Your task to perform on an android device: Search for the best rated 150-piece drill bit set on Aliexpress. Image 0: 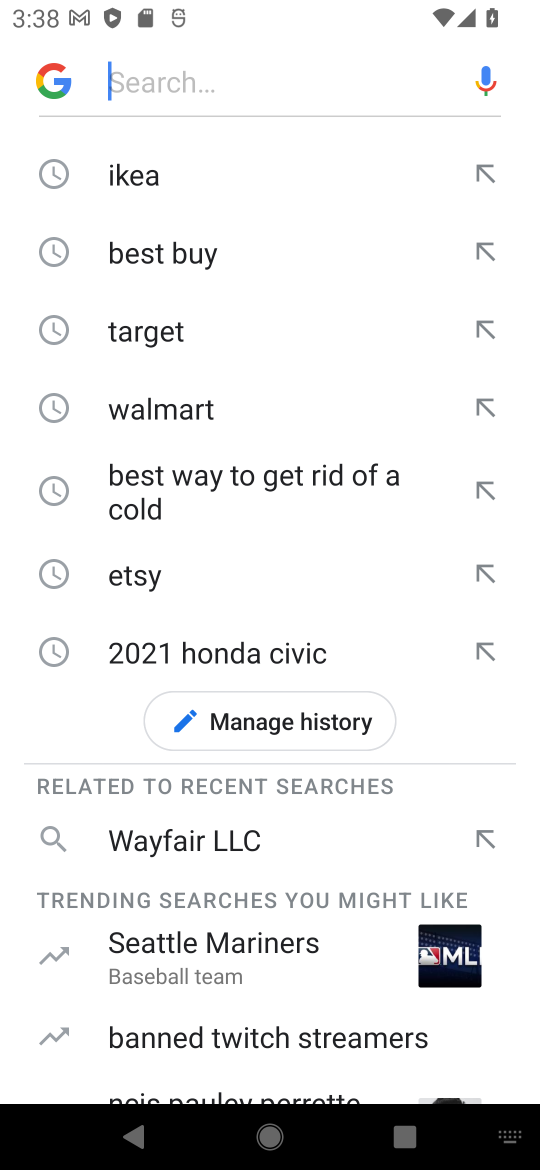
Step 0: press home button
Your task to perform on an android device: Search for the best rated 150-piece drill bit set on Aliexpress. Image 1: 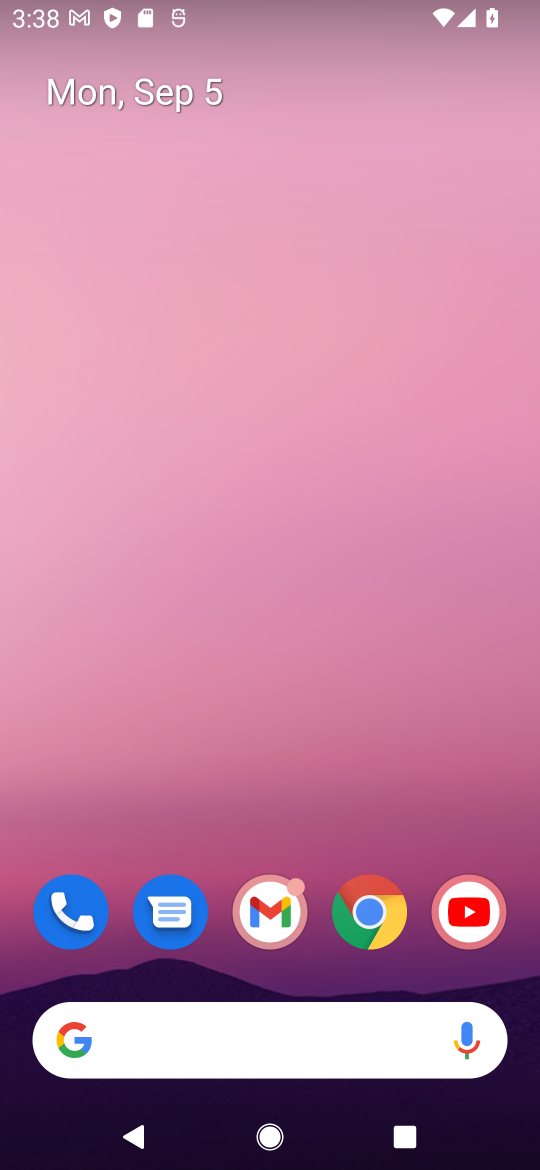
Step 1: click (367, 917)
Your task to perform on an android device: Search for the best rated 150-piece drill bit set on Aliexpress. Image 2: 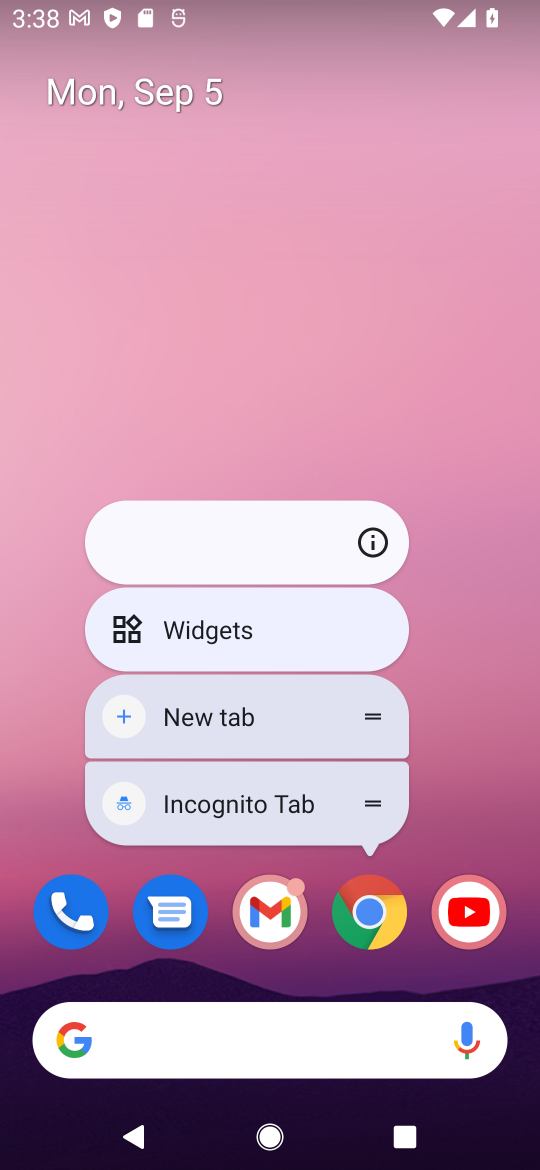
Step 2: click (382, 937)
Your task to perform on an android device: Search for the best rated 150-piece drill bit set on Aliexpress. Image 3: 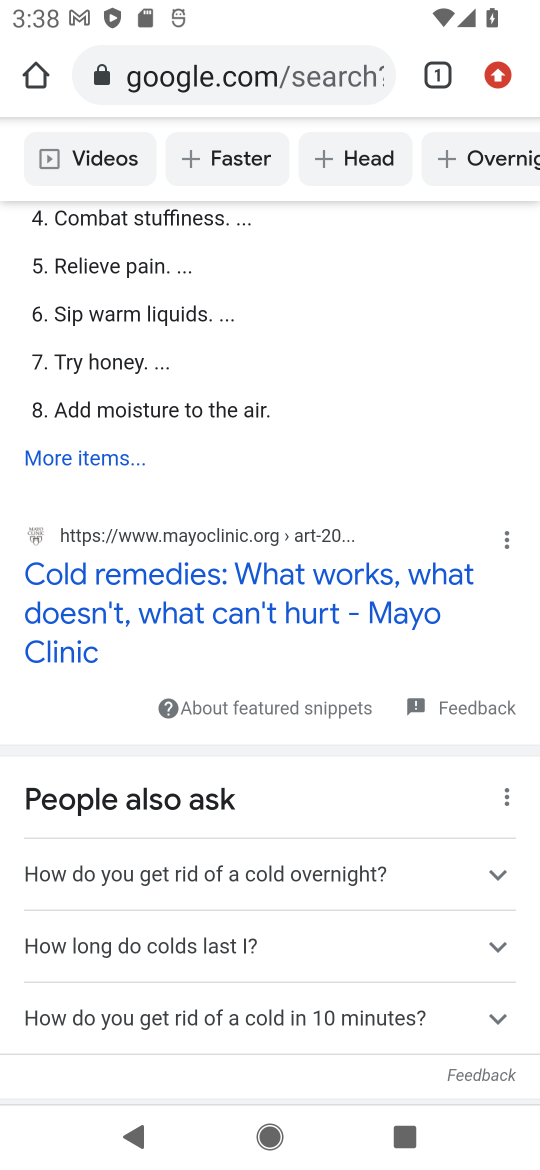
Step 3: click (256, 68)
Your task to perform on an android device: Search for the best rated 150-piece drill bit set on Aliexpress. Image 4: 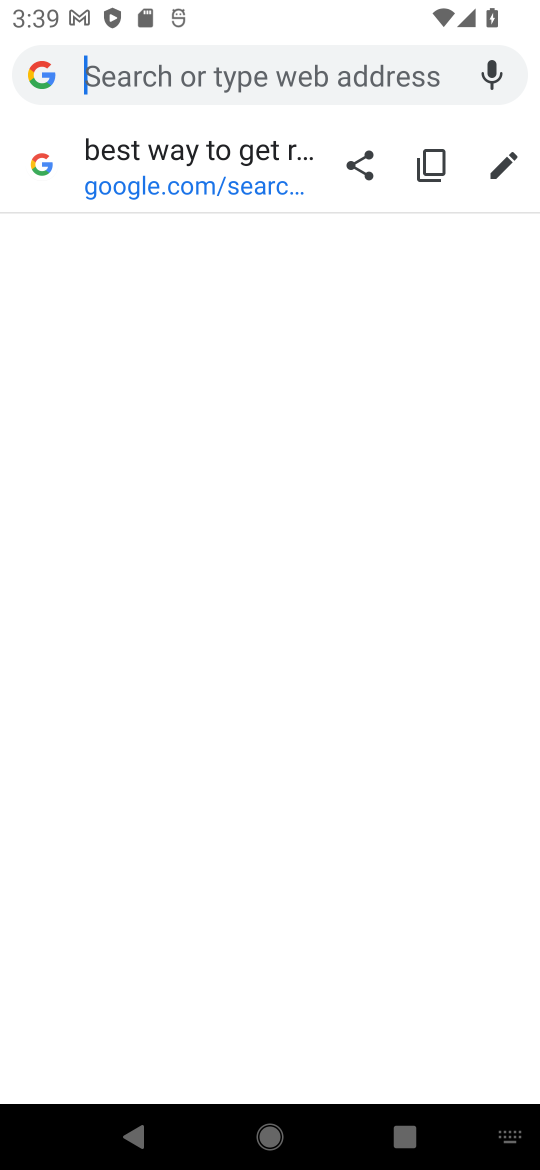
Step 4: type "aliexpress"
Your task to perform on an android device: Search for the best rated 150-piece drill bit set on Aliexpress. Image 5: 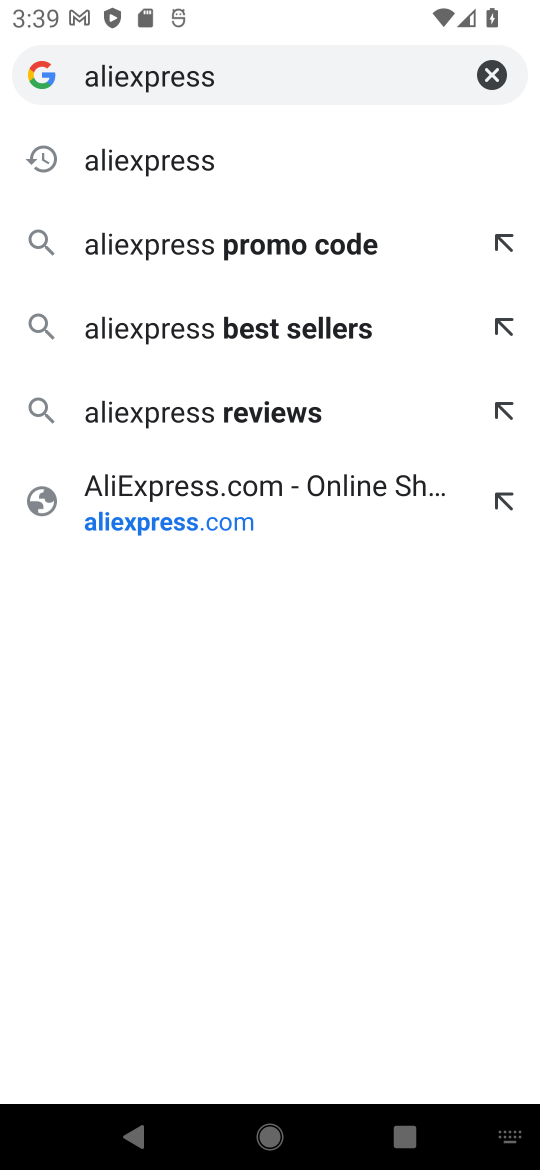
Step 5: press enter
Your task to perform on an android device: Search for the best rated 150-piece drill bit set on Aliexpress. Image 6: 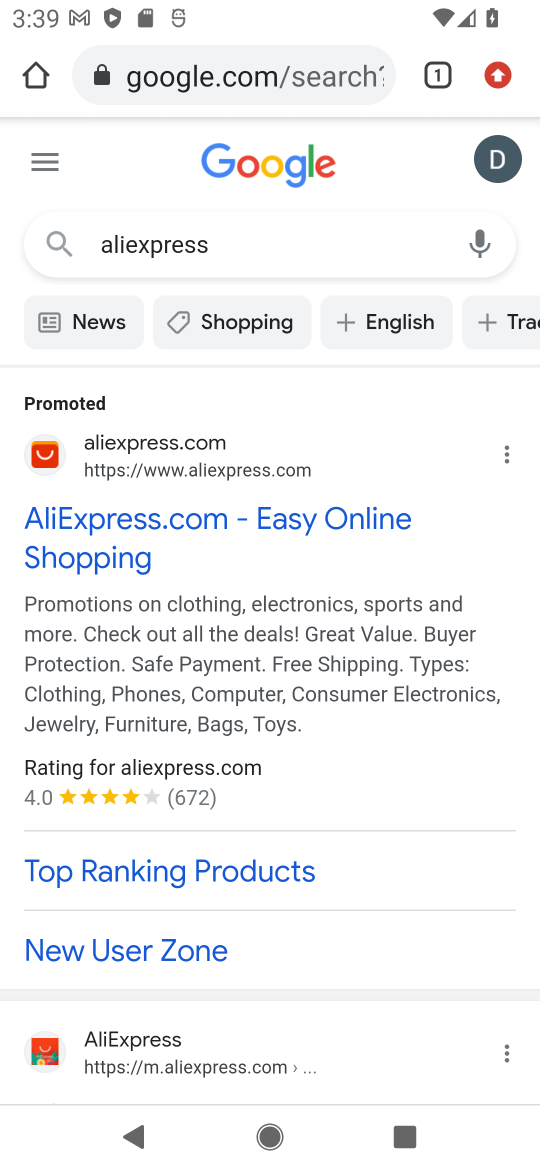
Step 6: click (72, 523)
Your task to perform on an android device: Search for the best rated 150-piece drill bit set on Aliexpress. Image 7: 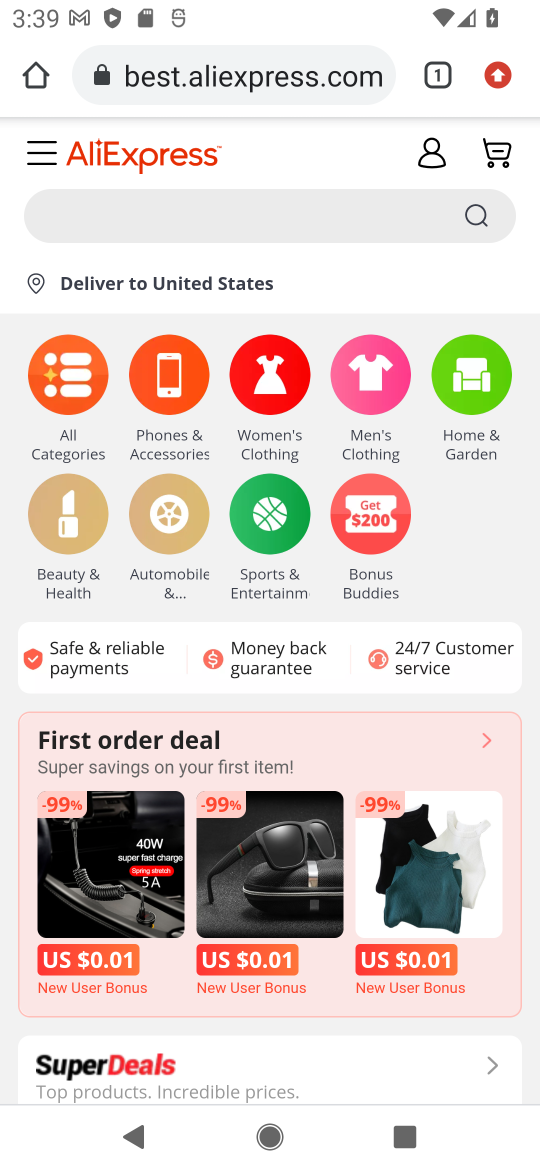
Step 7: click (245, 212)
Your task to perform on an android device: Search for the best rated 150-piece drill bit set on Aliexpress. Image 8: 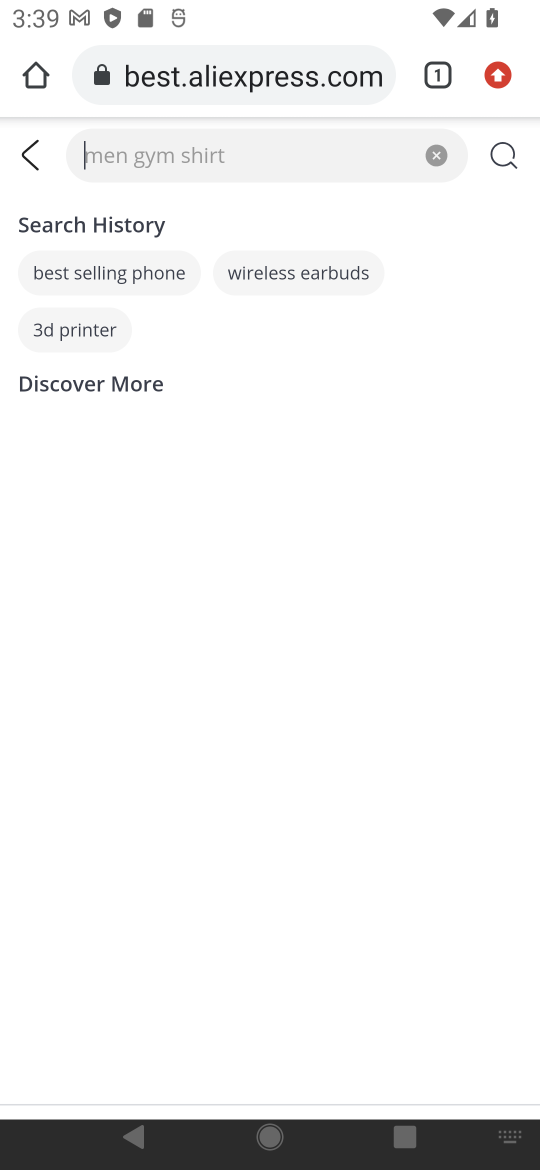
Step 8: click (245, 212)
Your task to perform on an android device: Search for the best rated 150-piece drill bit set on Aliexpress. Image 9: 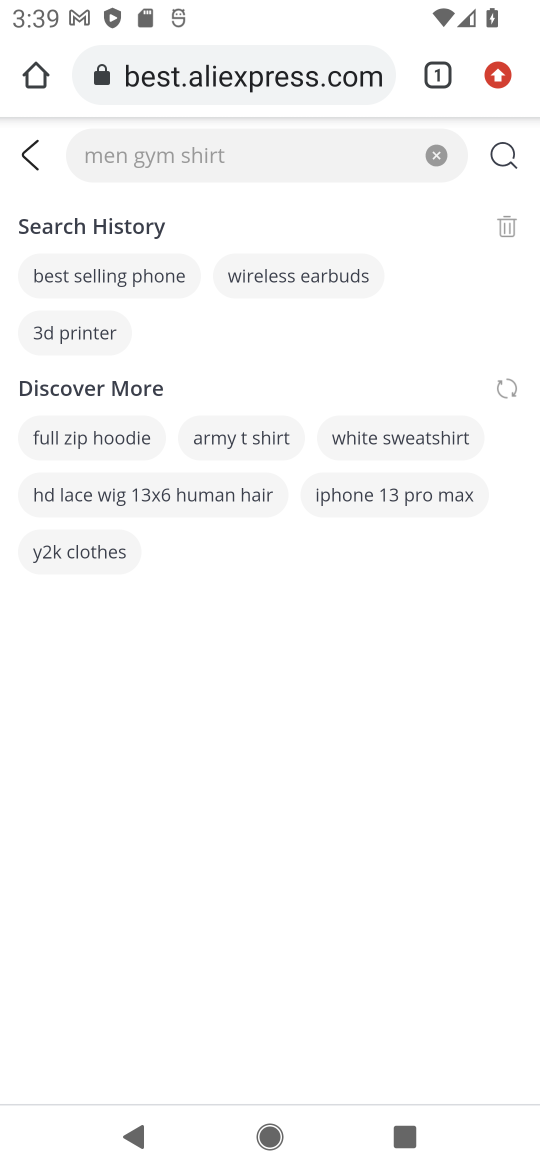
Step 9: click (152, 170)
Your task to perform on an android device: Search for the best rated 150-piece drill bit set on Aliexpress. Image 10: 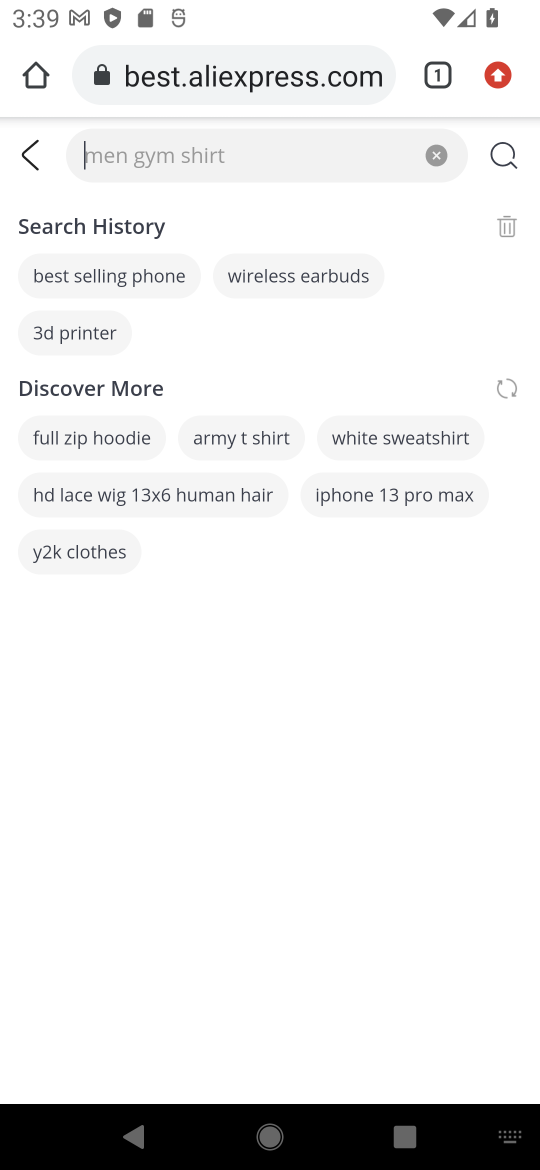
Step 10: type "best rated 150-piece drill bit set"
Your task to perform on an android device: Search for the best rated 150-piece drill bit set on Aliexpress. Image 11: 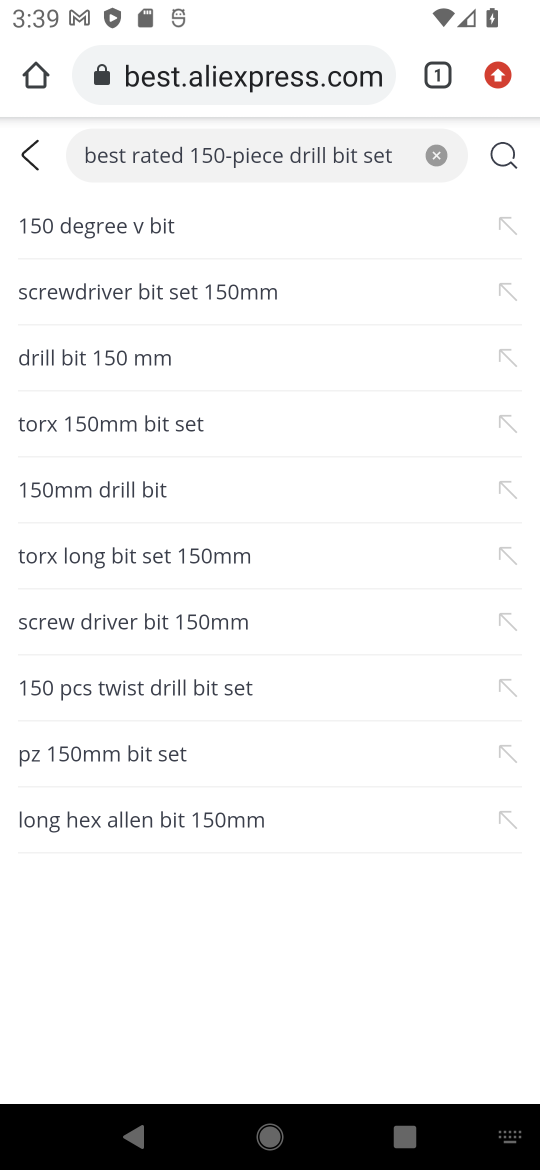
Step 11: press enter
Your task to perform on an android device: Search for the best rated 150-piece drill bit set on Aliexpress. Image 12: 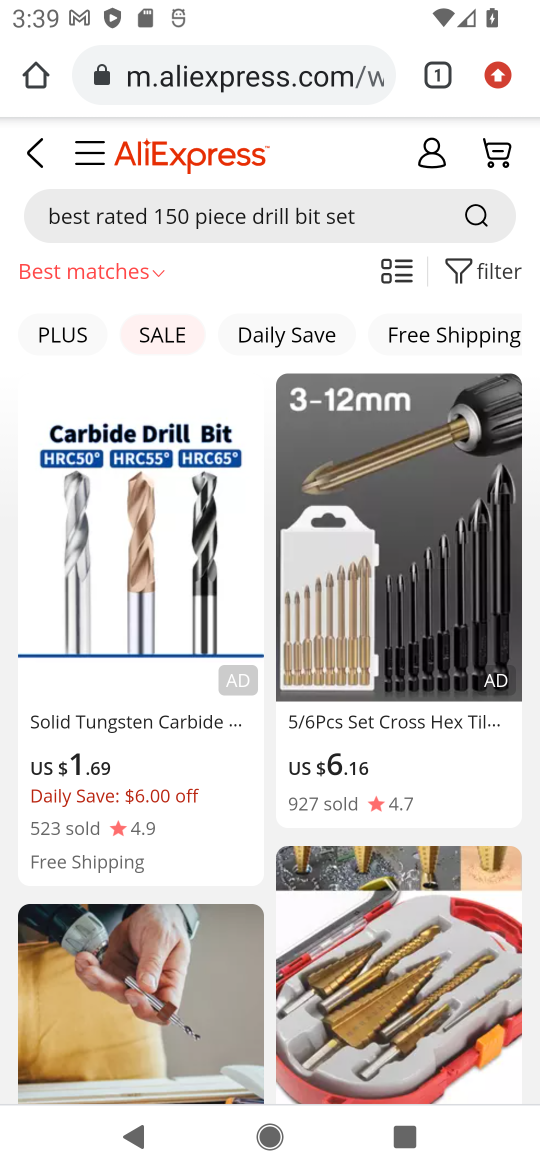
Step 12: drag from (292, 971) to (484, 693)
Your task to perform on an android device: Search for the best rated 150-piece drill bit set on Aliexpress. Image 13: 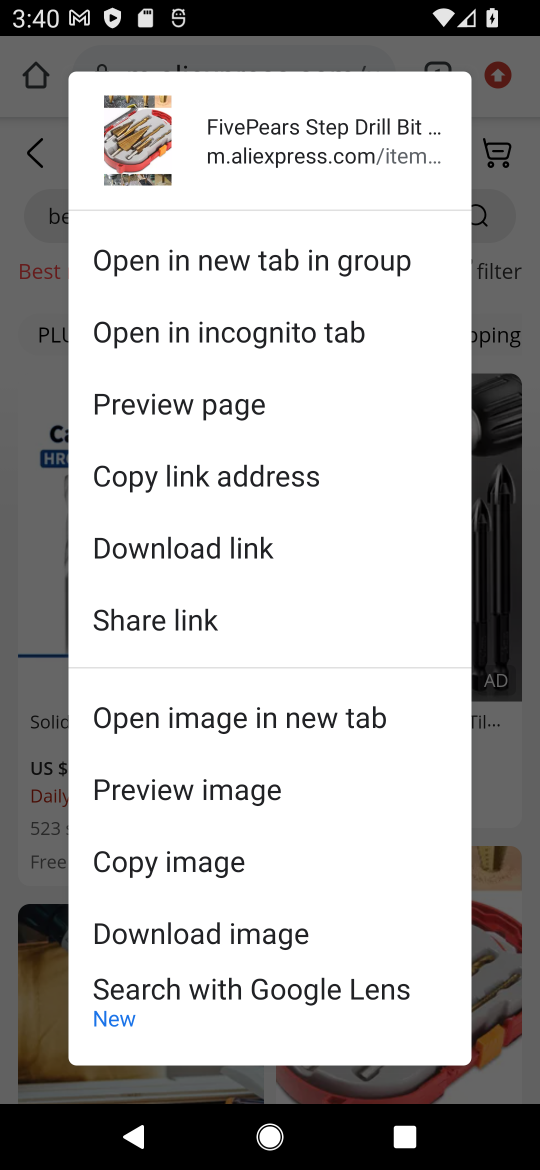
Step 13: click (510, 516)
Your task to perform on an android device: Search for the best rated 150-piece drill bit set on Aliexpress. Image 14: 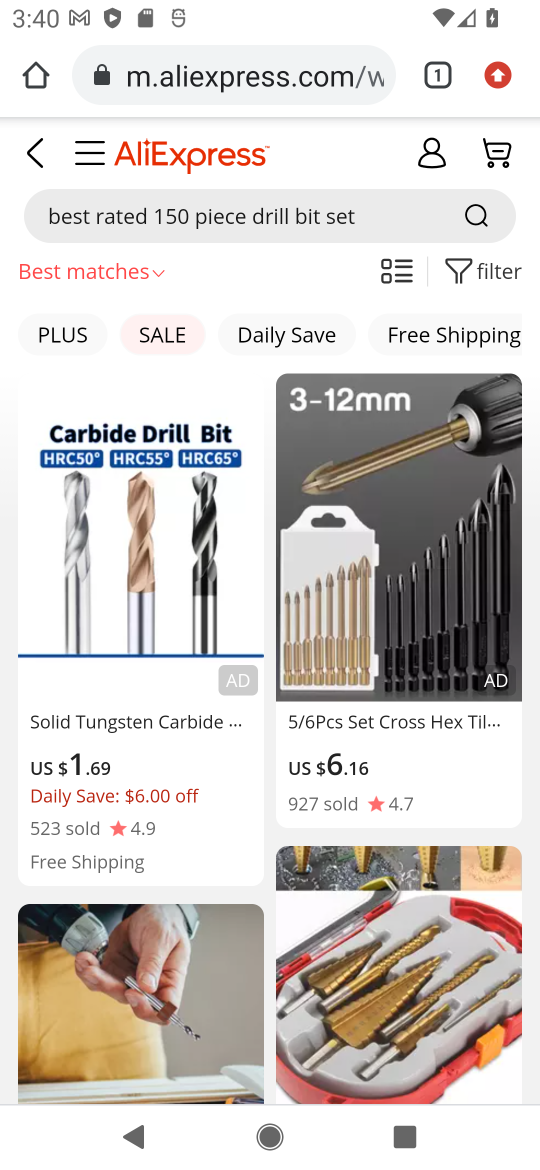
Step 14: drag from (372, 903) to (373, 521)
Your task to perform on an android device: Search for the best rated 150-piece drill bit set on Aliexpress. Image 15: 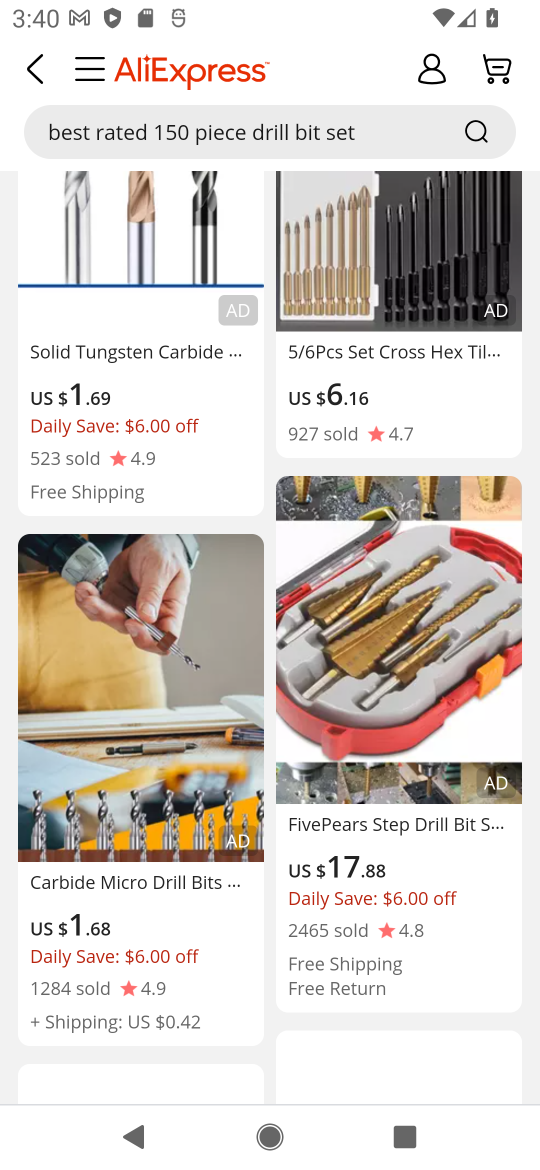
Step 15: drag from (365, 574) to (396, 792)
Your task to perform on an android device: Search for the best rated 150-piece drill bit set on Aliexpress. Image 16: 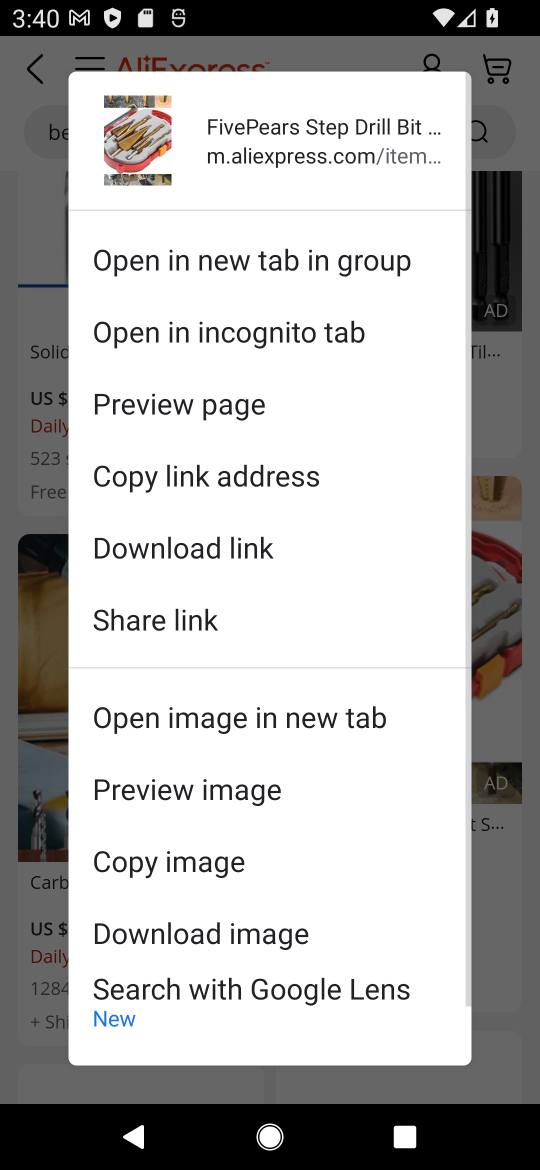
Step 16: click (508, 599)
Your task to perform on an android device: Search for the best rated 150-piece drill bit set on Aliexpress. Image 17: 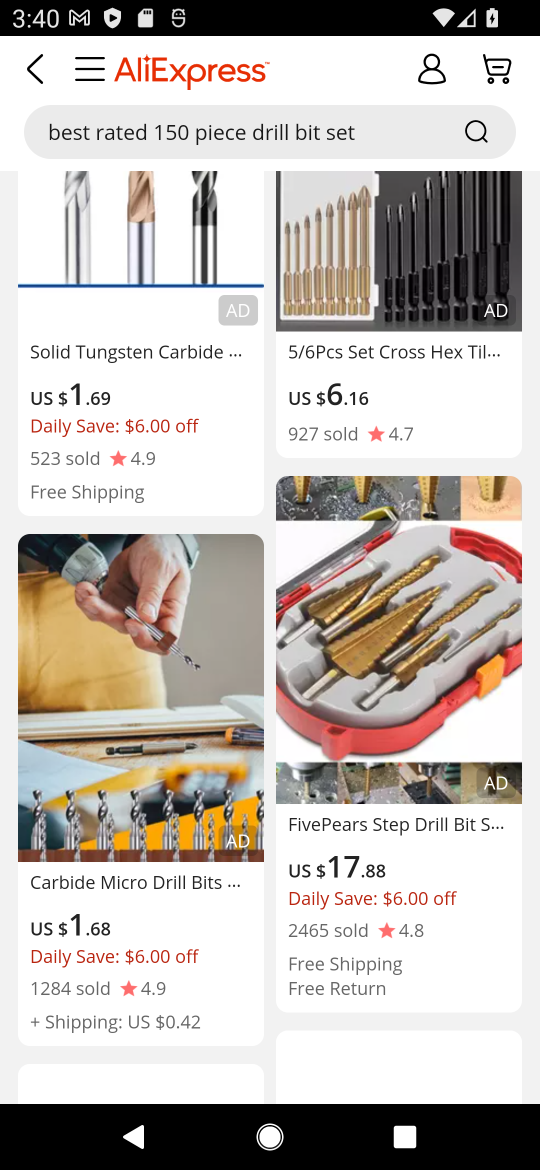
Step 17: task complete